Your task to perform on an android device: toggle wifi Image 0: 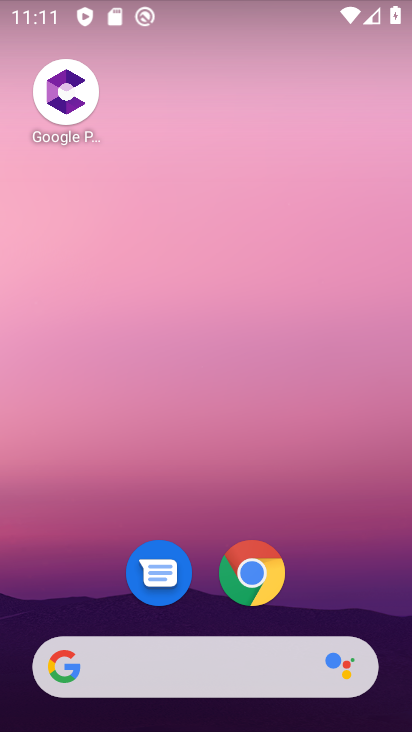
Step 0: drag from (356, 581) to (362, 101)
Your task to perform on an android device: toggle wifi Image 1: 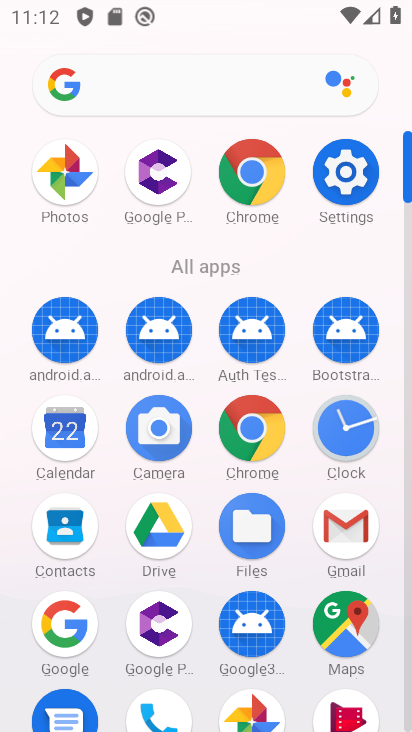
Step 1: click (336, 170)
Your task to perform on an android device: toggle wifi Image 2: 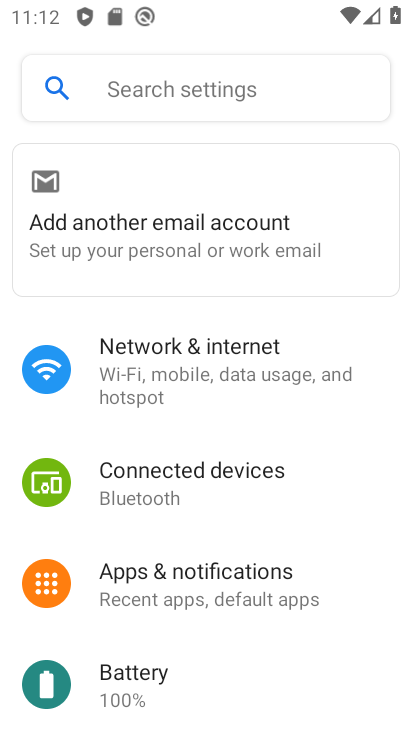
Step 2: click (180, 340)
Your task to perform on an android device: toggle wifi Image 3: 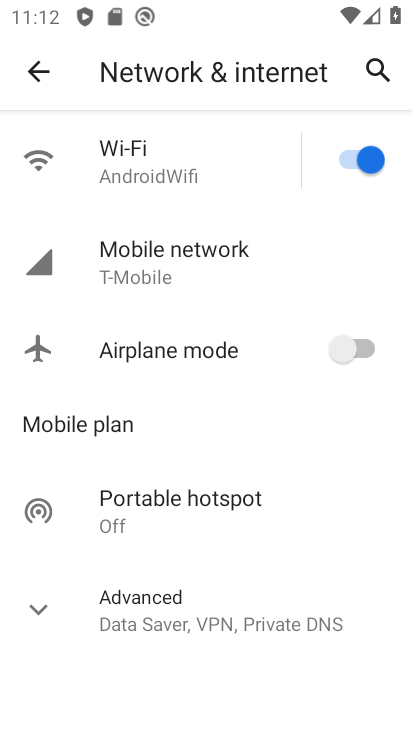
Step 3: click (361, 174)
Your task to perform on an android device: toggle wifi Image 4: 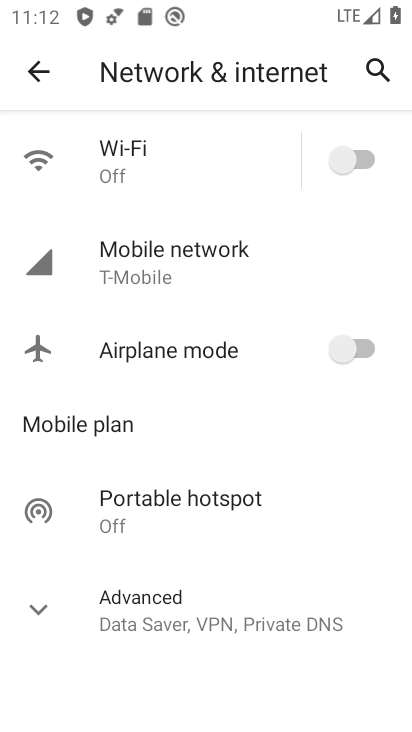
Step 4: task complete